Your task to perform on an android device: set the stopwatch Image 0: 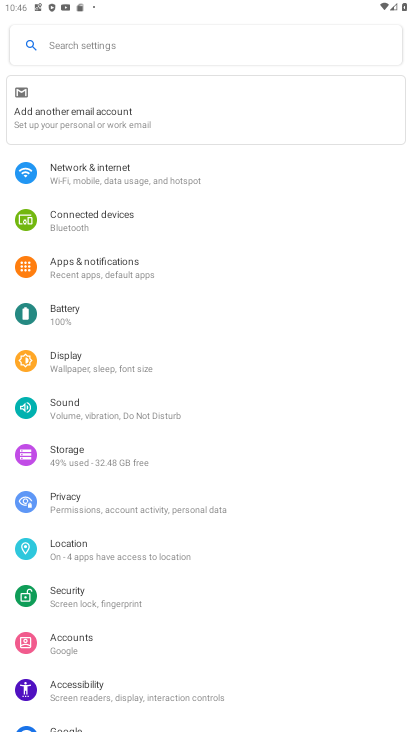
Step 0: press home button
Your task to perform on an android device: set the stopwatch Image 1: 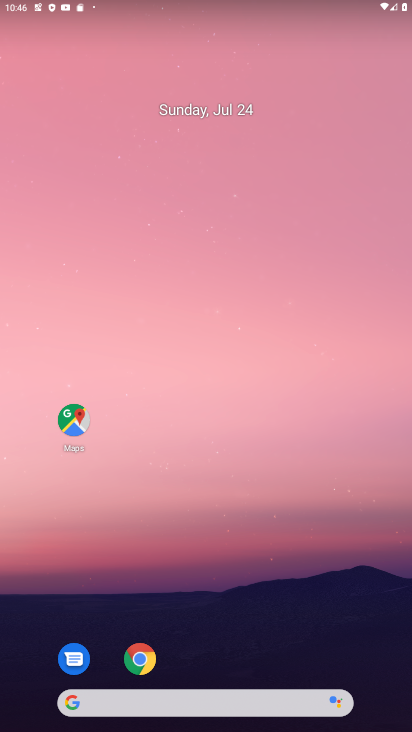
Step 1: drag from (210, 700) to (263, 47)
Your task to perform on an android device: set the stopwatch Image 2: 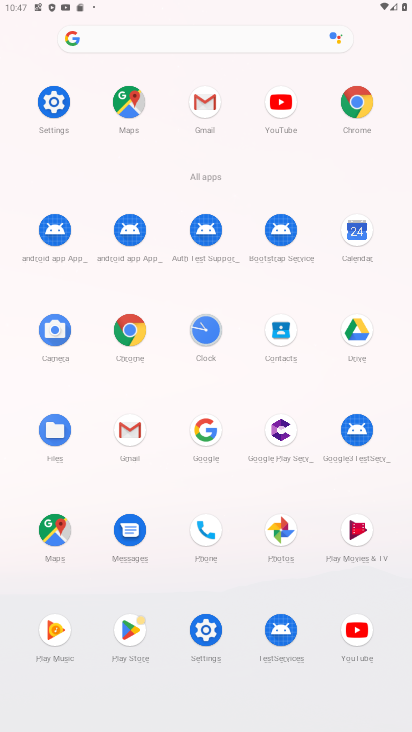
Step 2: click (207, 330)
Your task to perform on an android device: set the stopwatch Image 3: 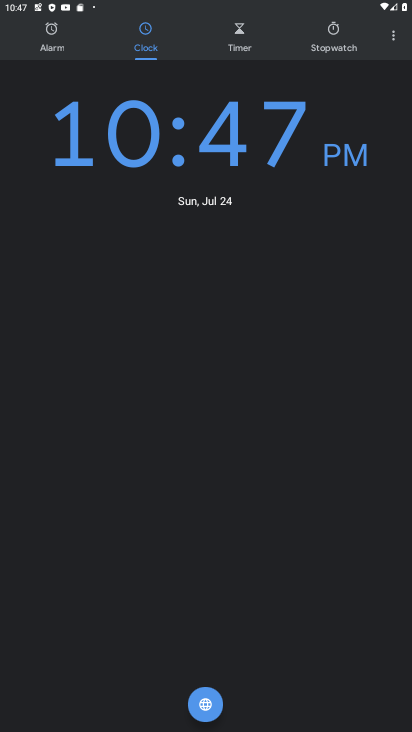
Step 3: click (335, 29)
Your task to perform on an android device: set the stopwatch Image 4: 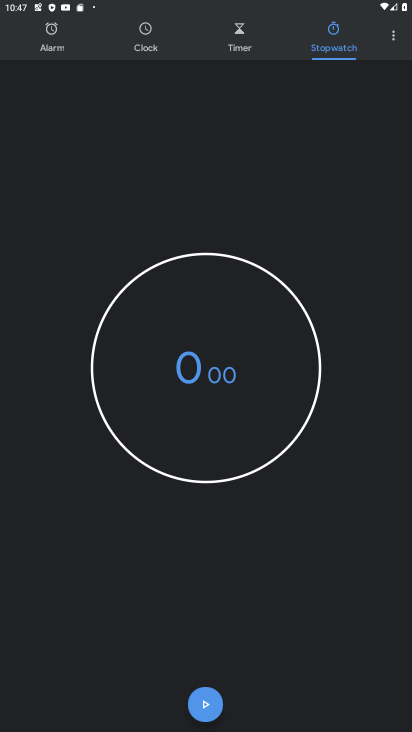
Step 4: click (230, 389)
Your task to perform on an android device: set the stopwatch Image 5: 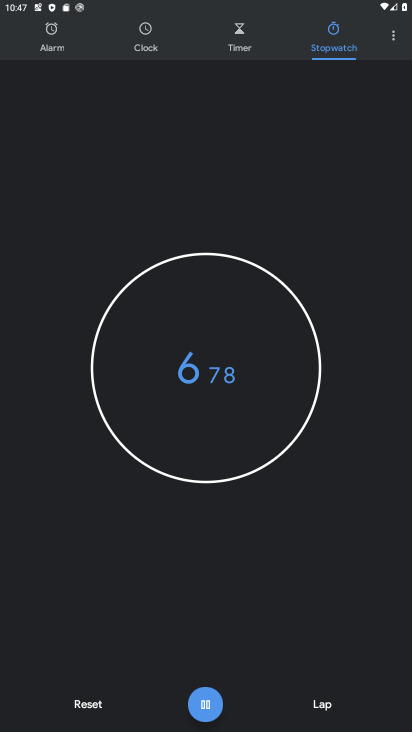
Step 5: click (230, 389)
Your task to perform on an android device: set the stopwatch Image 6: 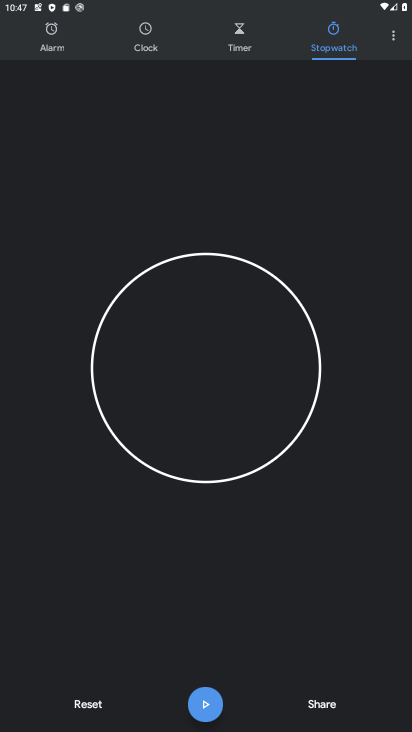
Step 6: task complete